Your task to perform on an android device: turn off wifi Image 0: 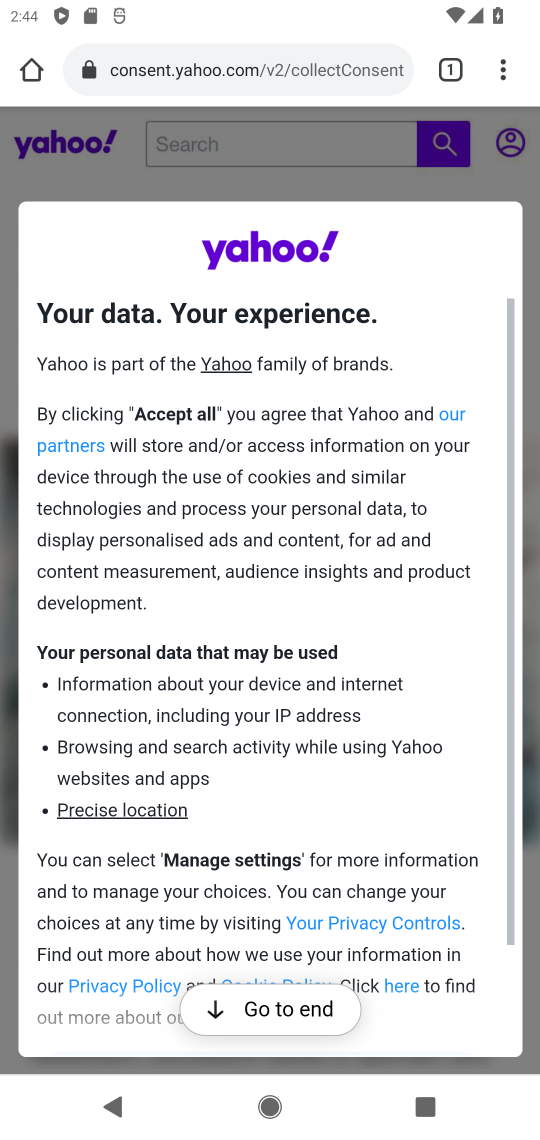
Step 0: press home button
Your task to perform on an android device: turn off wifi Image 1: 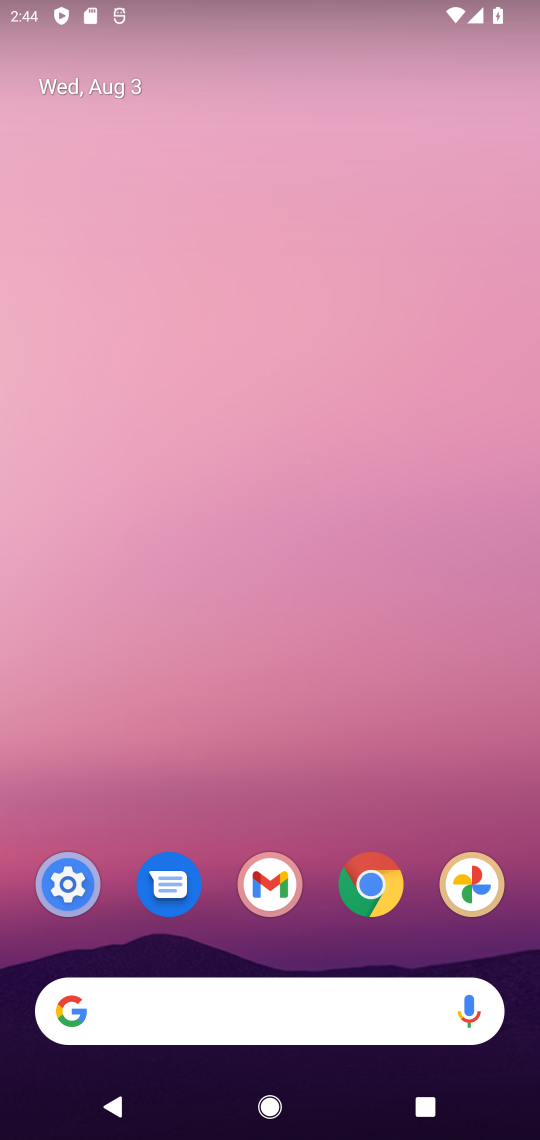
Step 1: click (53, 887)
Your task to perform on an android device: turn off wifi Image 2: 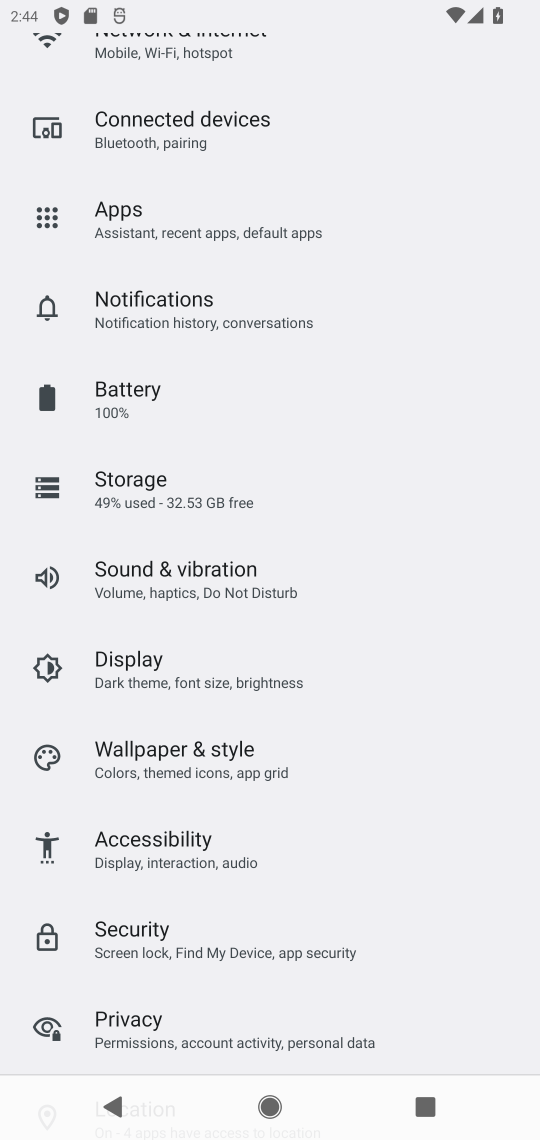
Step 2: click (159, 58)
Your task to perform on an android device: turn off wifi Image 3: 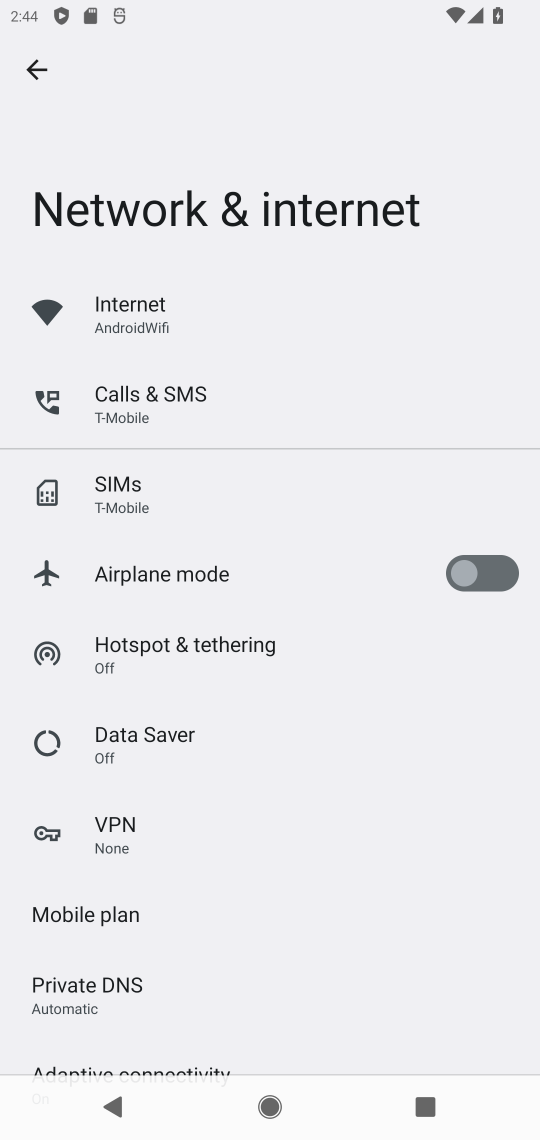
Step 3: click (245, 313)
Your task to perform on an android device: turn off wifi Image 4: 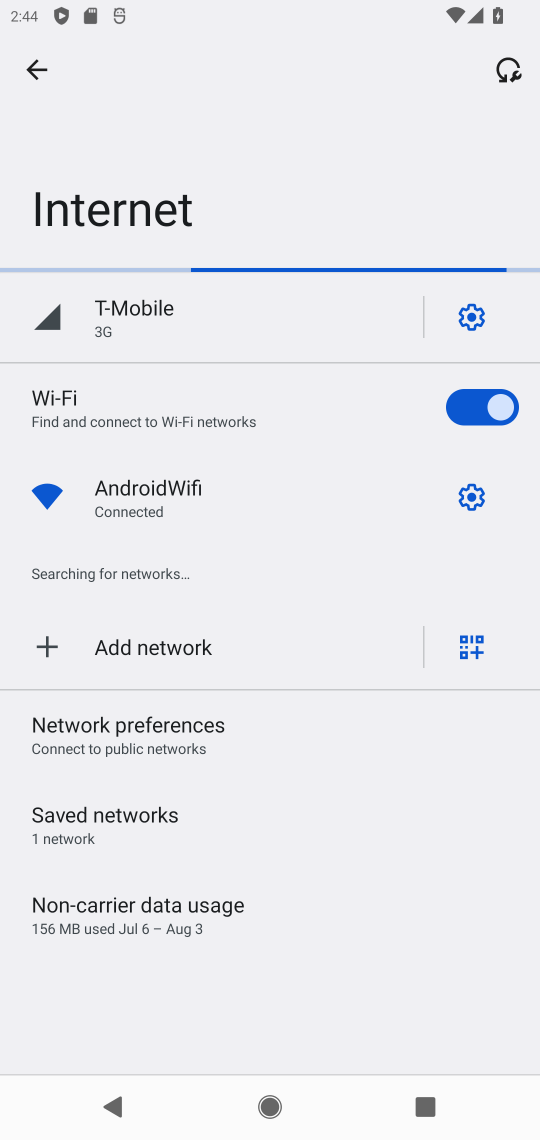
Step 4: click (448, 418)
Your task to perform on an android device: turn off wifi Image 5: 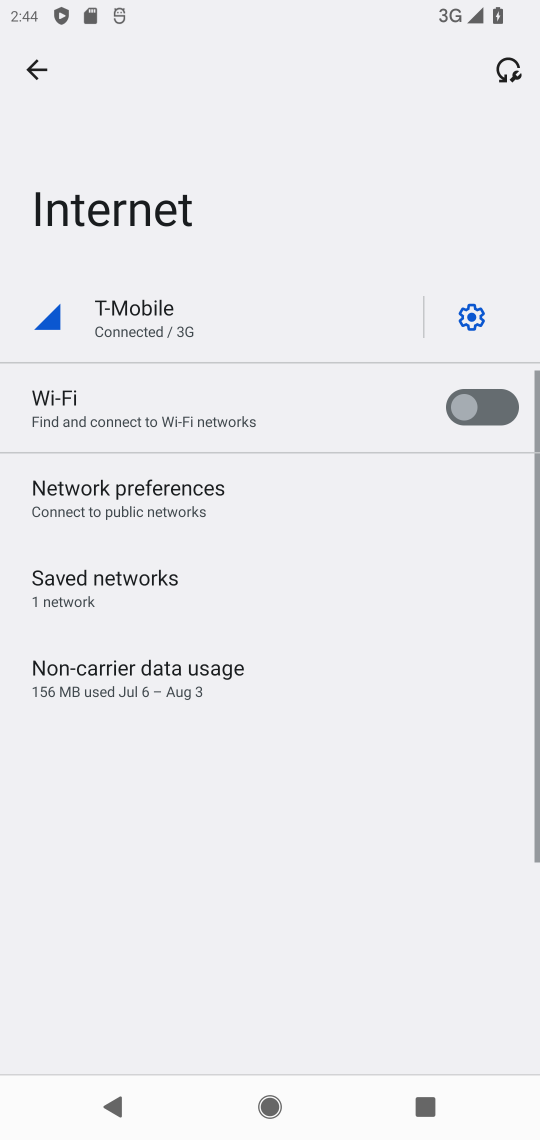
Step 5: task complete